Your task to perform on an android device: toggle translation in the chrome app Image 0: 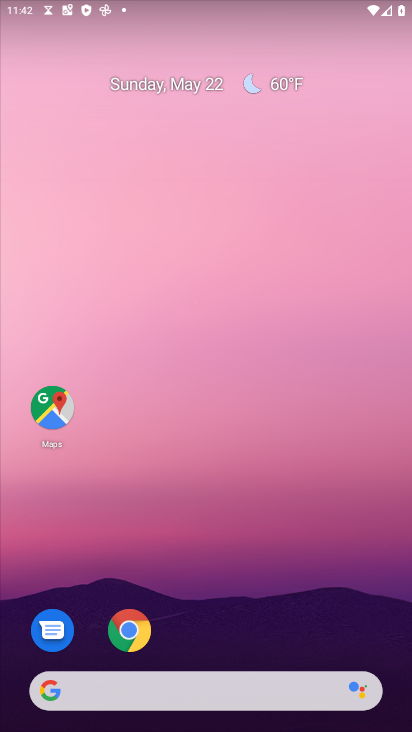
Step 0: click (128, 629)
Your task to perform on an android device: toggle translation in the chrome app Image 1: 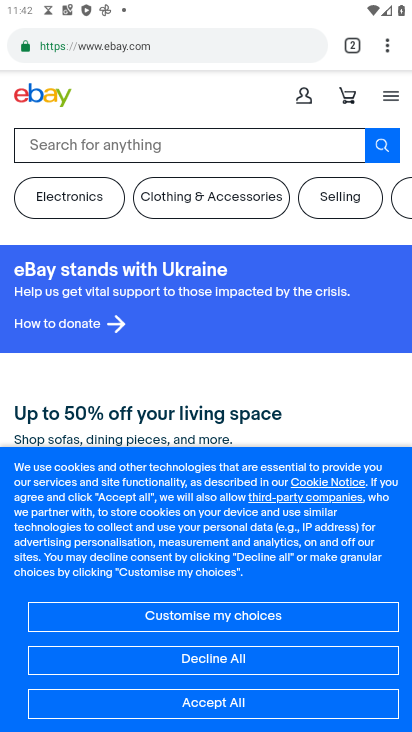
Step 1: click (386, 45)
Your task to perform on an android device: toggle translation in the chrome app Image 2: 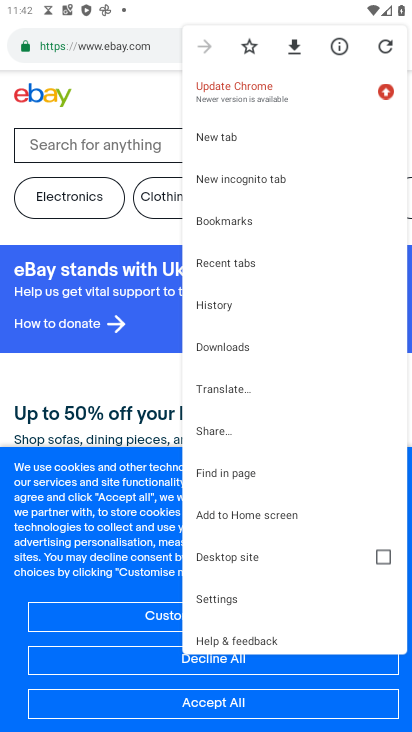
Step 2: click (226, 597)
Your task to perform on an android device: toggle translation in the chrome app Image 3: 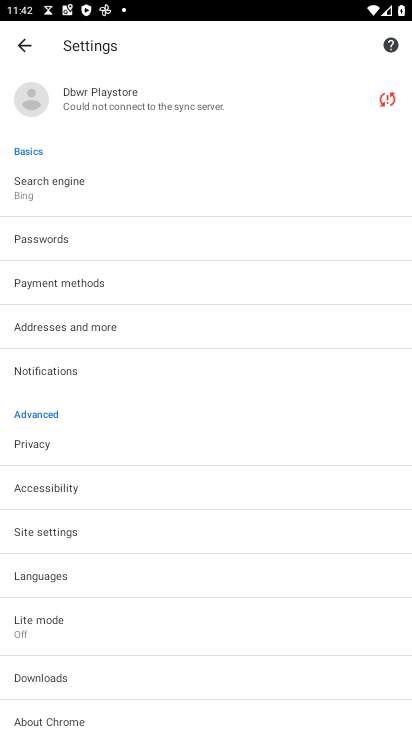
Step 3: click (48, 574)
Your task to perform on an android device: toggle translation in the chrome app Image 4: 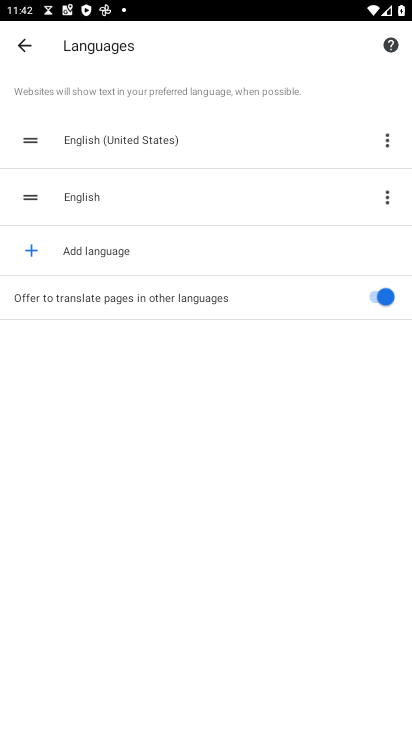
Step 4: click (376, 293)
Your task to perform on an android device: toggle translation in the chrome app Image 5: 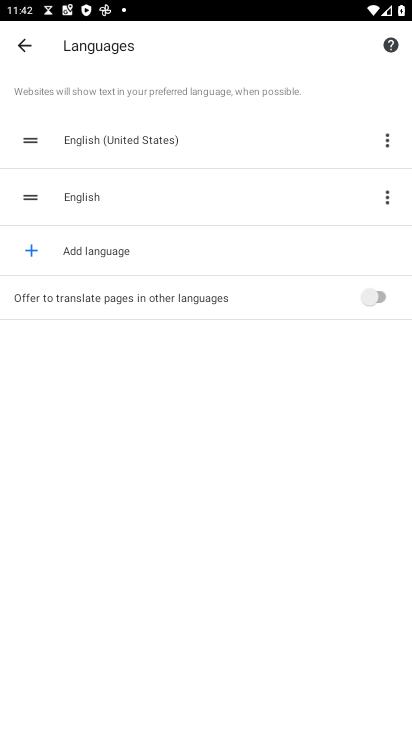
Step 5: task complete